Your task to perform on an android device: empty trash in google photos Image 0: 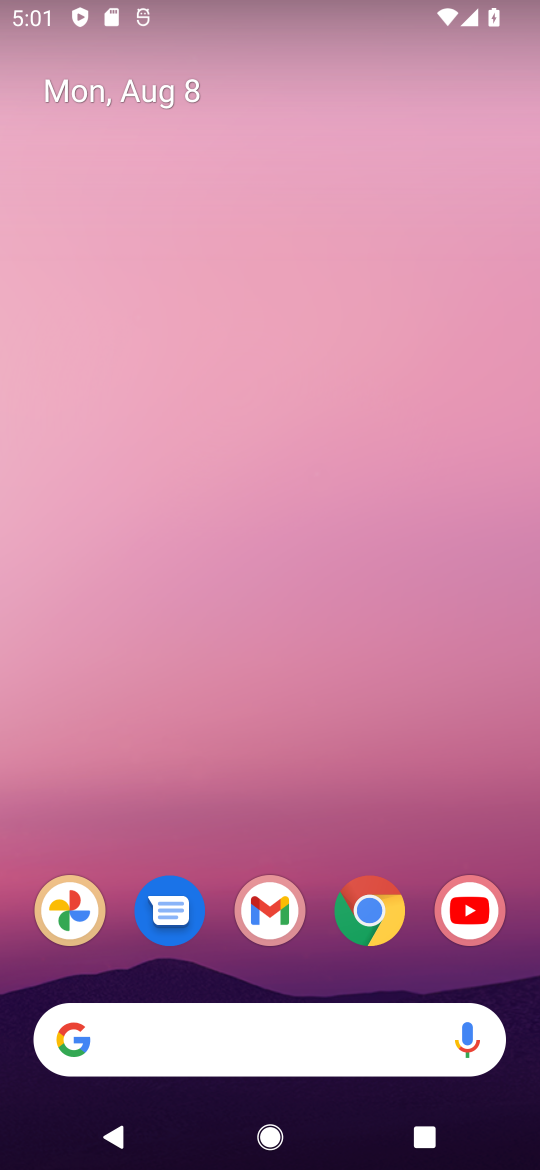
Step 0: drag from (235, 1032) to (331, 515)
Your task to perform on an android device: empty trash in google photos Image 1: 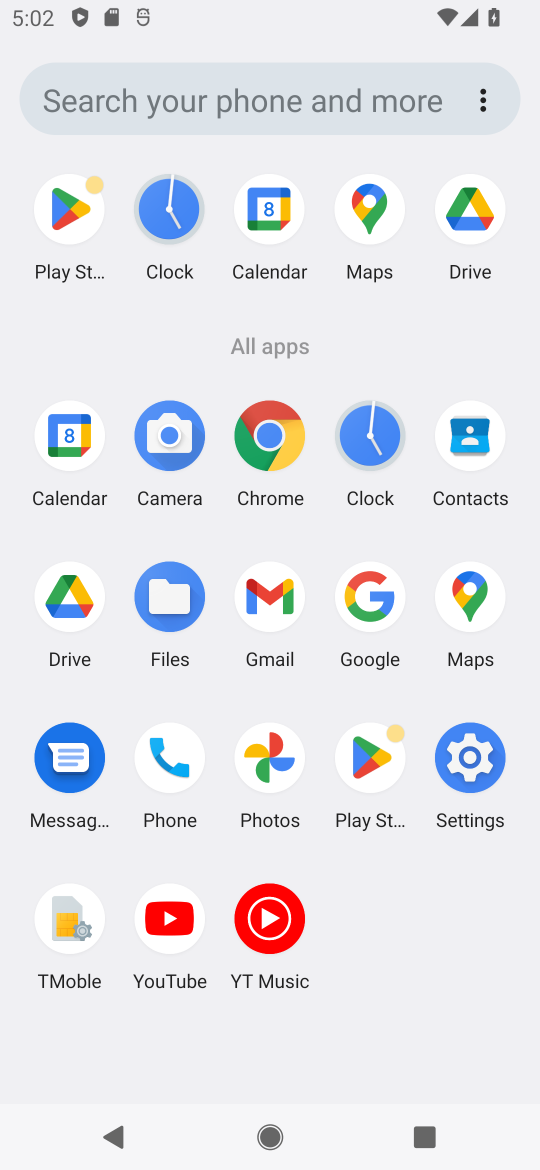
Step 1: click (271, 757)
Your task to perform on an android device: empty trash in google photos Image 2: 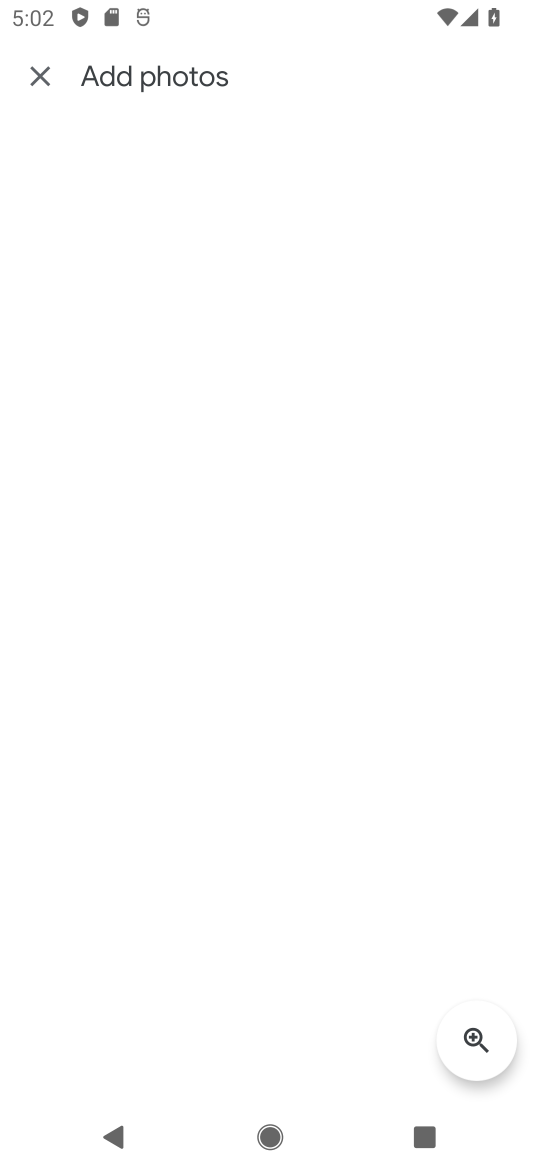
Step 2: press back button
Your task to perform on an android device: empty trash in google photos Image 3: 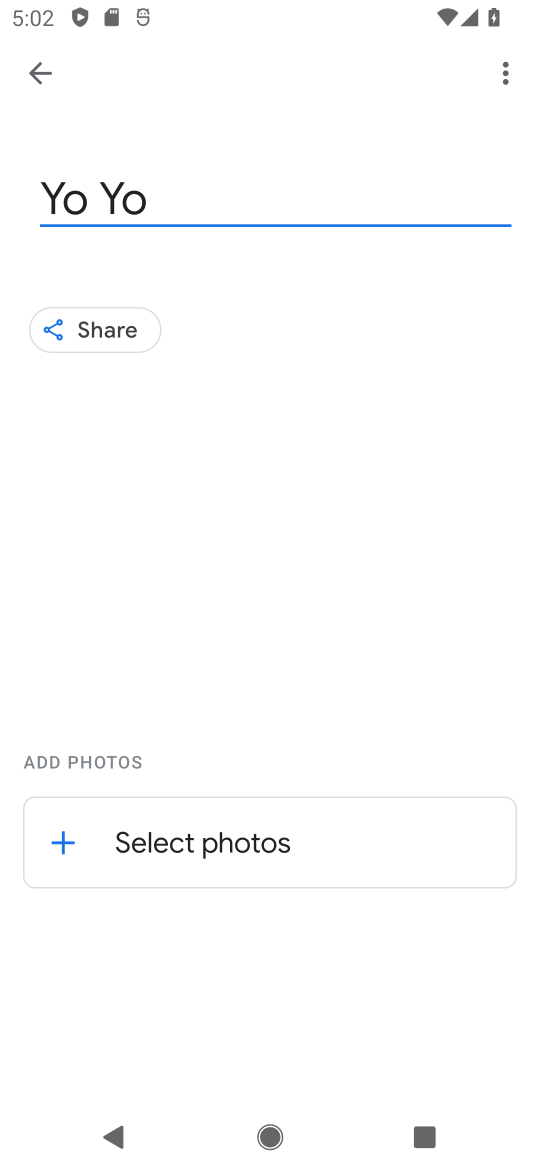
Step 3: press back button
Your task to perform on an android device: empty trash in google photos Image 4: 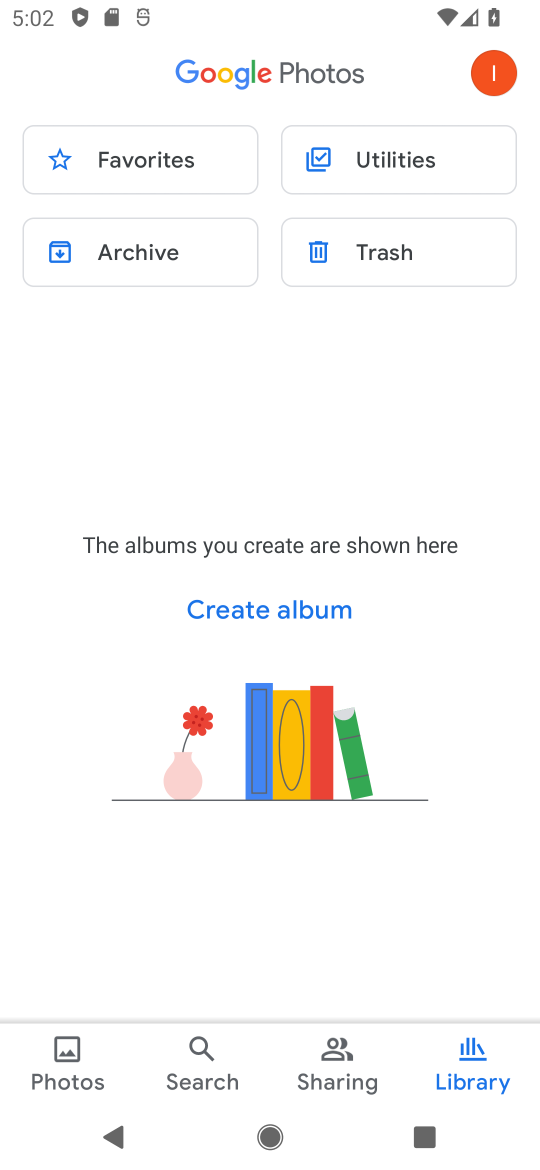
Step 4: click (376, 246)
Your task to perform on an android device: empty trash in google photos Image 5: 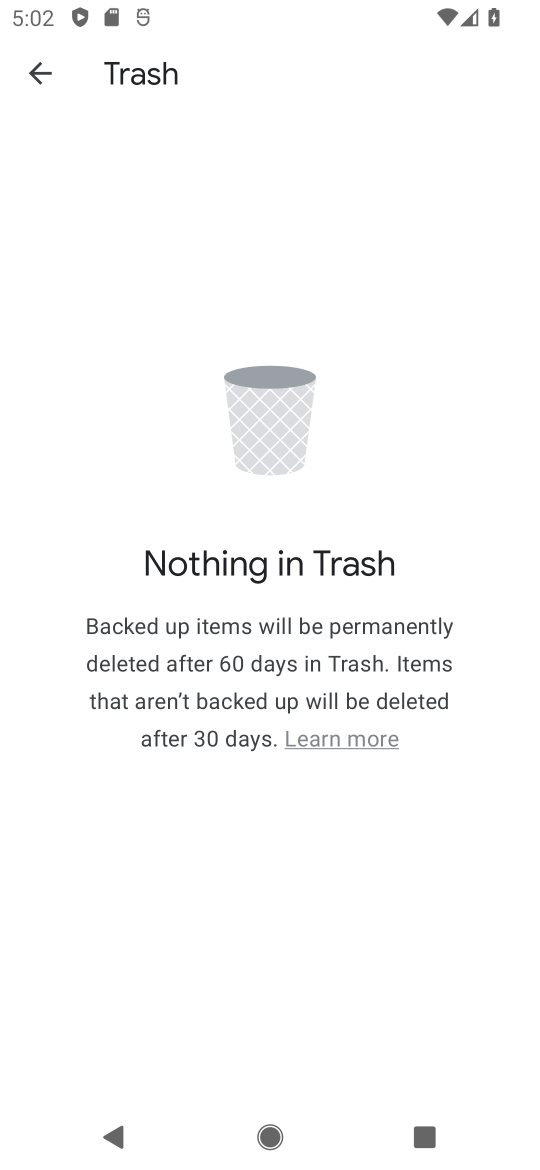
Step 5: task complete